Your task to perform on an android device: Go to battery settings Image 0: 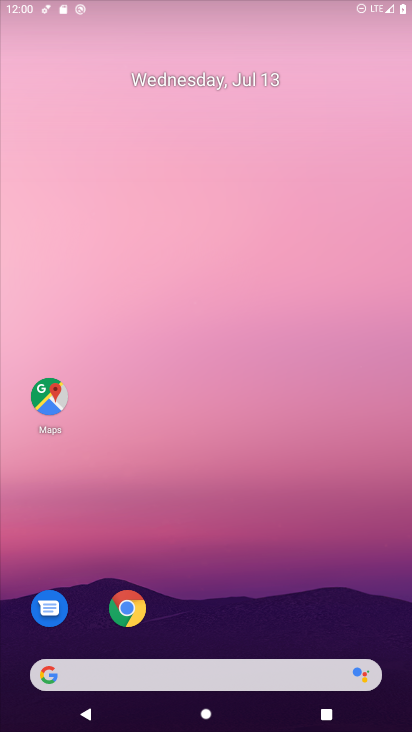
Step 0: click (122, 602)
Your task to perform on an android device: Go to battery settings Image 1: 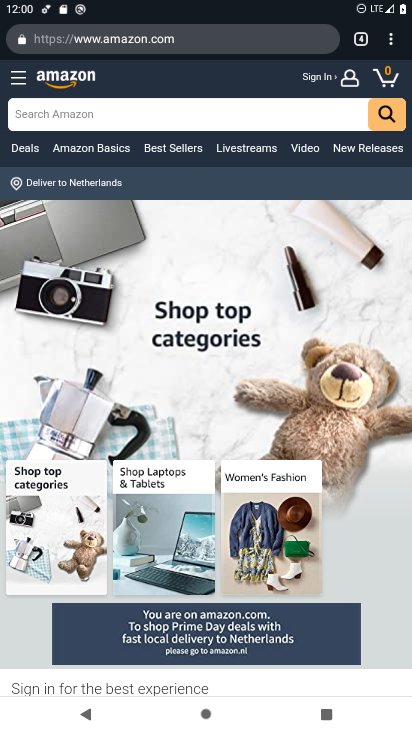
Step 1: drag from (267, 20) to (297, 653)
Your task to perform on an android device: Go to battery settings Image 2: 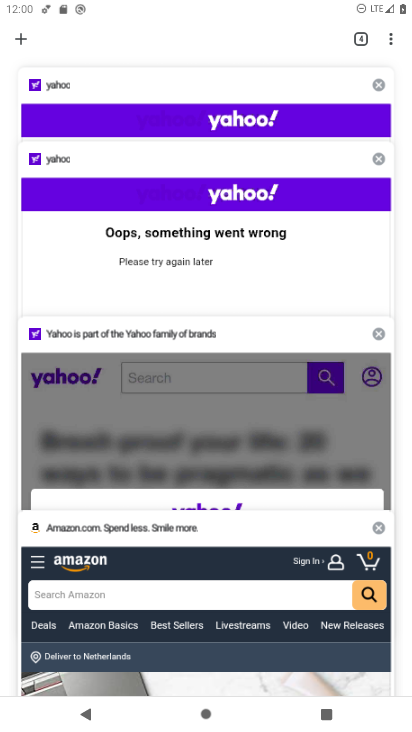
Step 2: drag from (185, 20) to (225, 705)
Your task to perform on an android device: Go to battery settings Image 3: 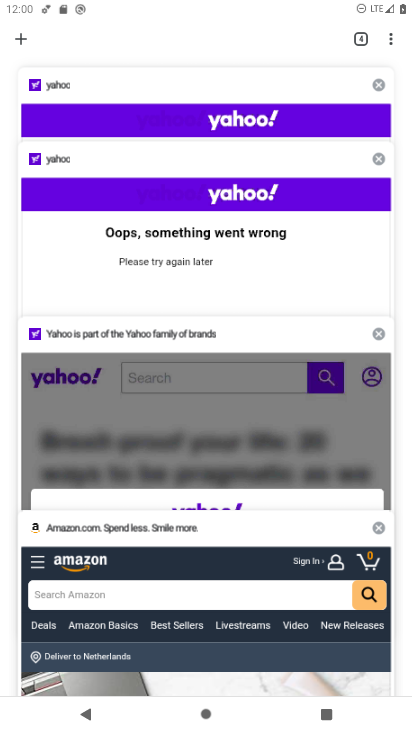
Step 3: drag from (142, 9) to (190, 643)
Your task to perform on an android device: Go to battery settings Image 4: 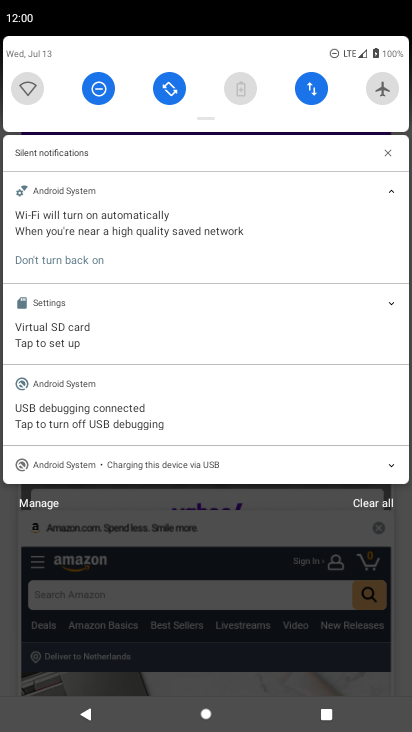
Step 4: click (250, 88)
Your task to perform on an android device: Go to battery settings Image 5: 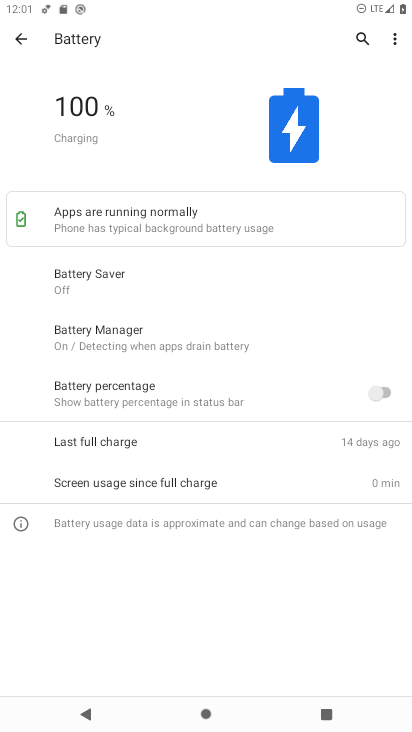
Step 5: task complete